Your task to perform on an android device: change the clock display to digital Image 0: 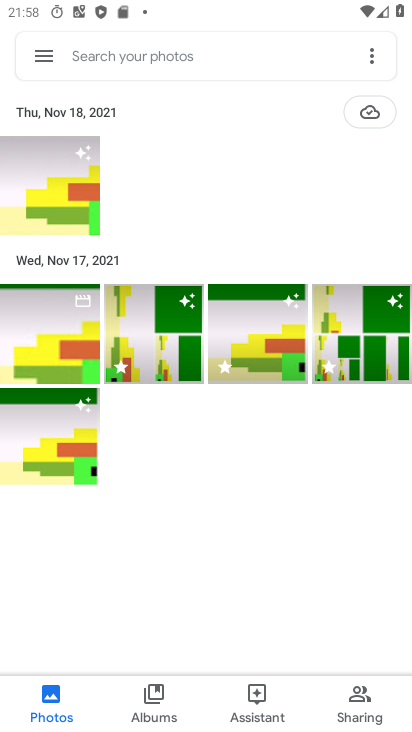
Step 0: press home button
Your task to perform on an android device: change the clock display to digital Image 1: 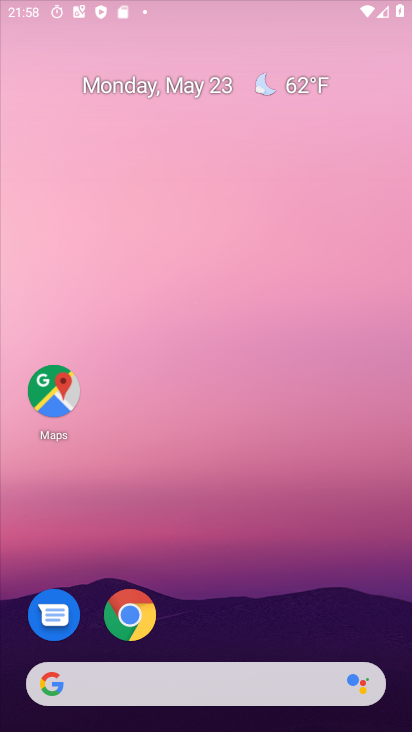
Step 1: drag from (199, 604) to (202, 96)
Your task to perform on an android device: change the clock display to digital Image 2: 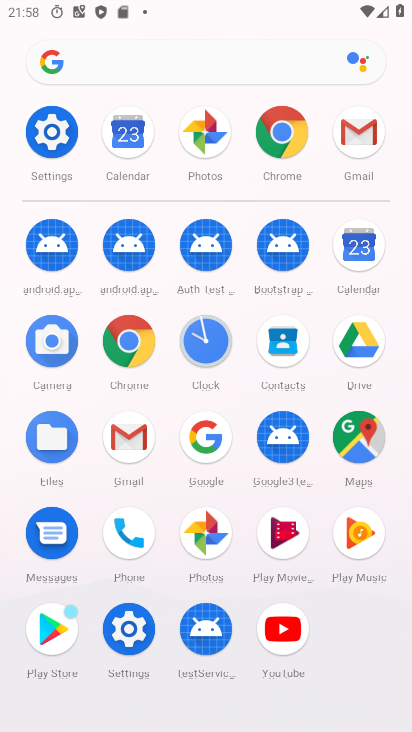
Step 2: click (204, 345)
Your task to perform on an android device: change the clock display to digital Image 3: 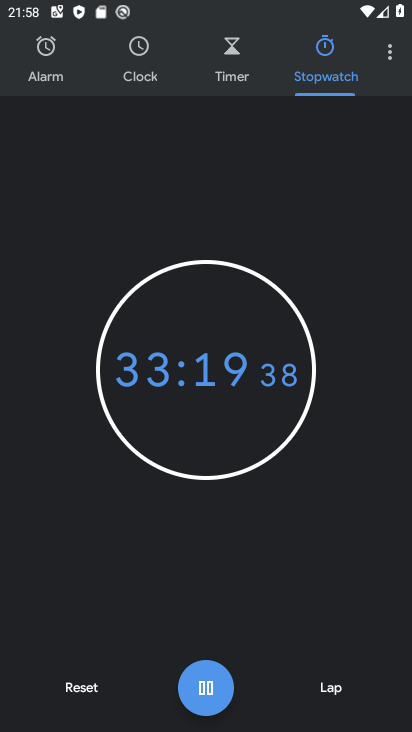
Step 3: click (386, 54)
Your task to perform on an android device: change the clock display to digital Image 4: 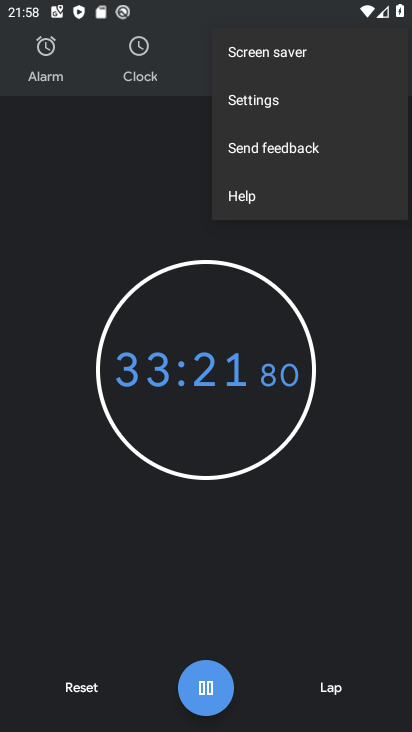
Step 4: click (274, 103)
Your task to perform on an android device: change the clock display to digital Image 5: 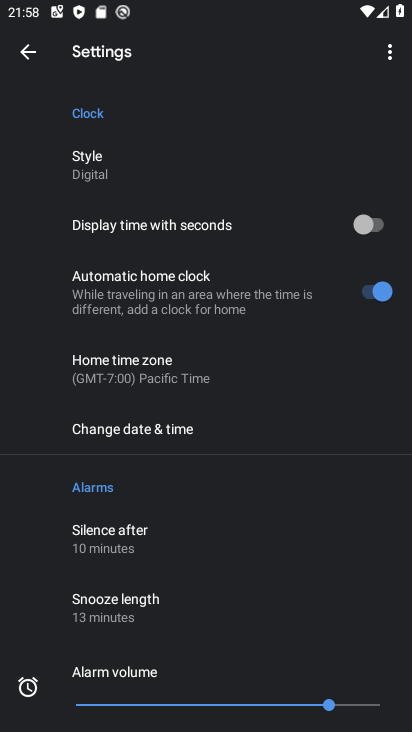
Step 5: click (113, 172)
Your task to perform on an android device: change the clock display to digital Image 6: 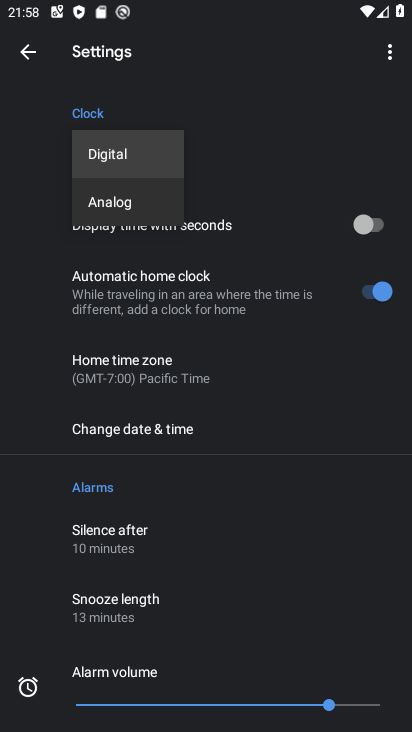
Step 6: task complete